Your task to perform on an android device: add a label to a message in the gmail app Image 0: 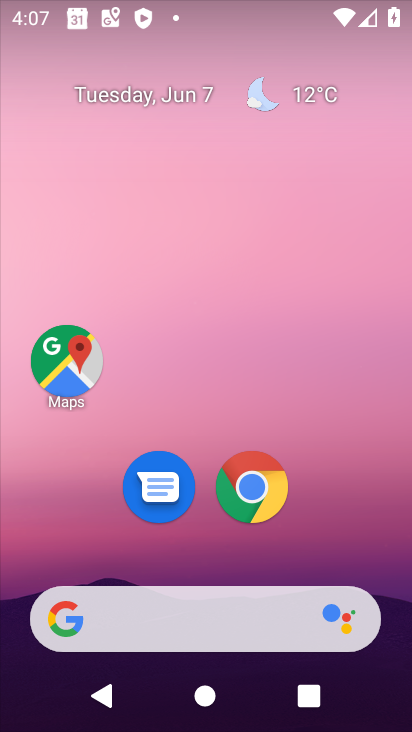
Step 0: drag from (207, 596) to (290, 29)
Your task to perform on an android device: add a label to a message in the gmail app Image 1: 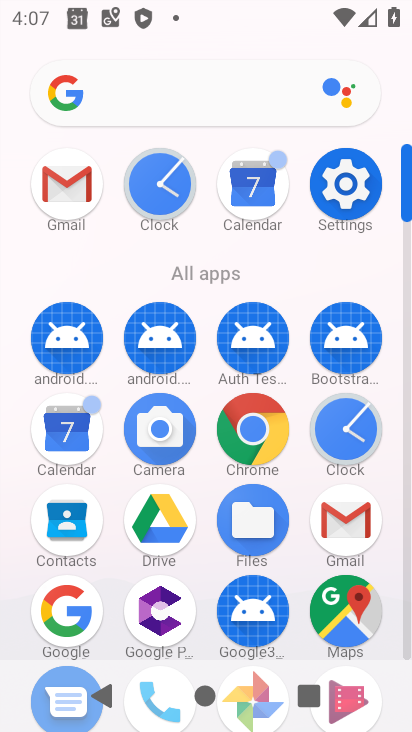
Step 1: click (69, 190)
Your task to perform on an android device: add a label to a message in the gmail app Image 2: 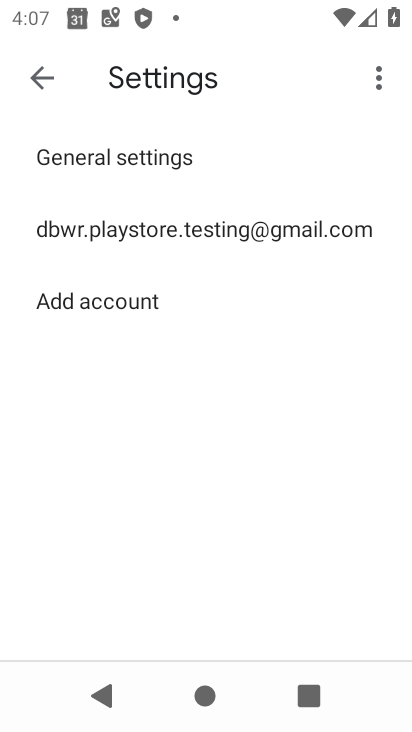
Step 2: click (35, 68)
Your task to perform on an android device: add a label to a message in the gmail app Image 3: 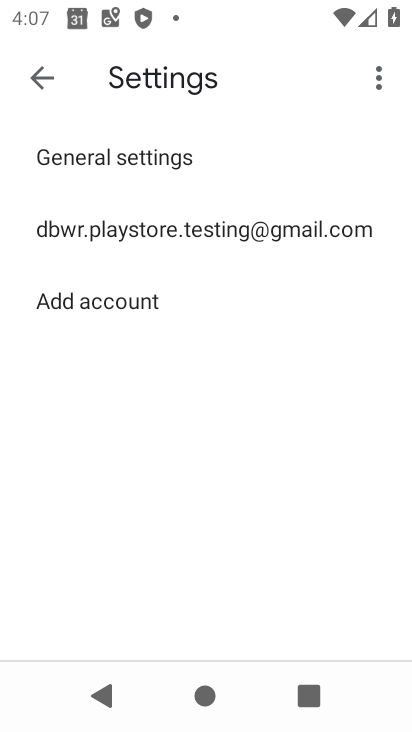
Step 3: click (37, 65)
Your task to perform on an android device: add a label to a message in the gmail app Image 4: 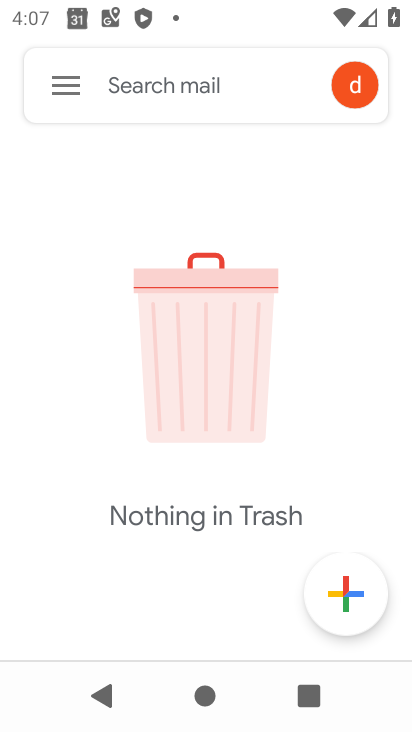
Step 4: click (60, 84)
Your task to perform on an android device: add a label to a message in the gmail app Image 5: 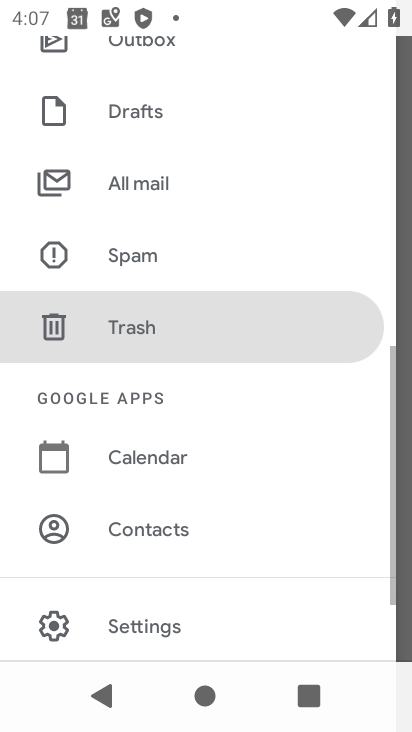
Step 5: click (140, 174)
Your task to perform on an android device: add a label to a message in the gmail app Image 6: 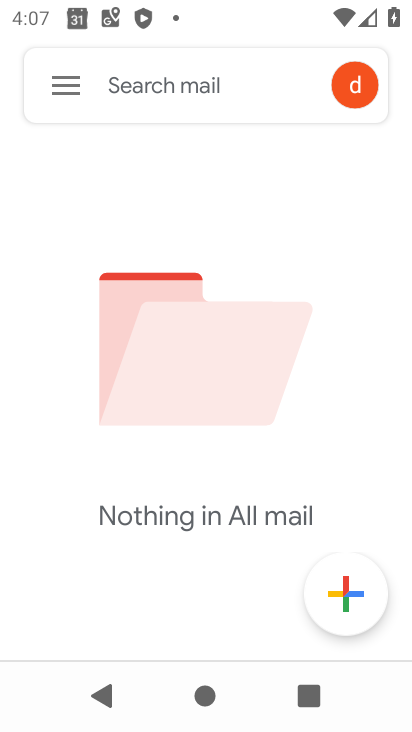
Step 6: task complete